Your task to perform on an android device: see tabs open on other devices in the chrome app Image 0: 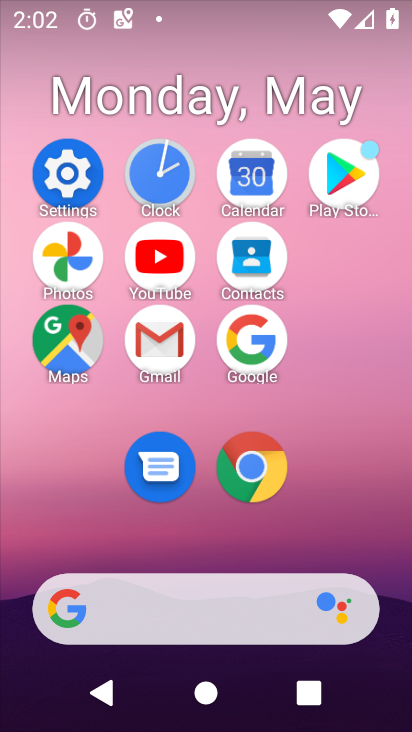
Step 0: click (288, 470)
Your task to perform on an android device: see tabs open on other devices in the chrome app Image 1: 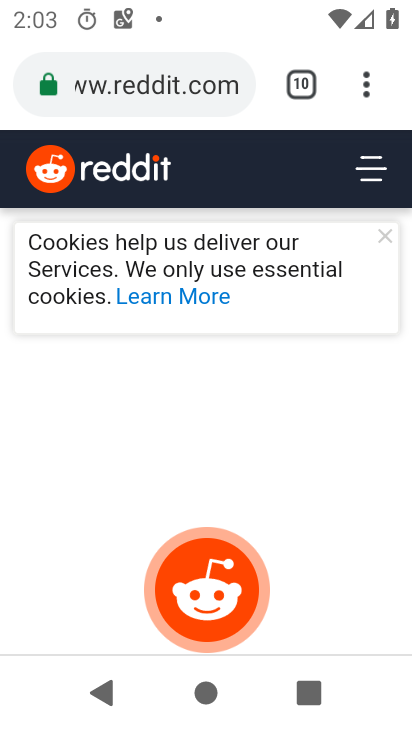
Step 1: click (366, 100)
Your task to perform on an android device: see tabs open on other devices in the chrome app Image 2: 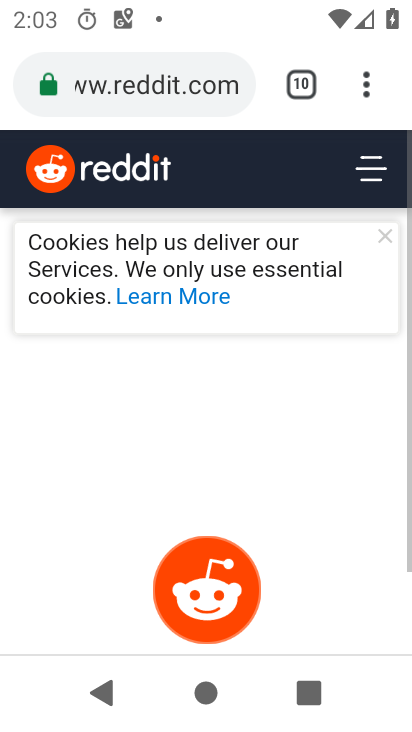
Step 2: click (377, 105)
Your task to perform on an android device: see tabs open on other devices in the chrome app Image 3: 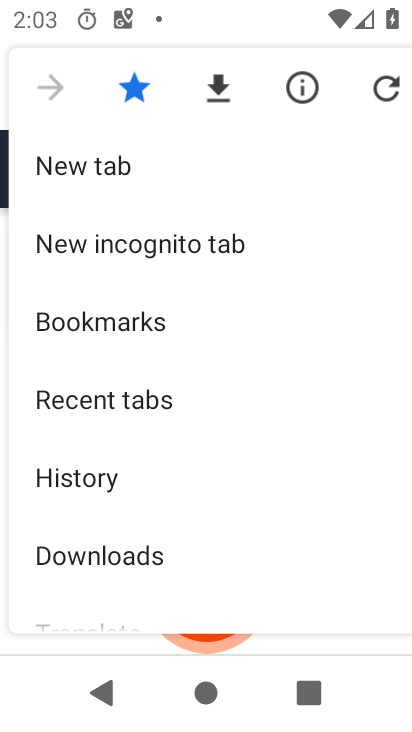
Step 3: click (238, 388)
Your task to perform on an android device: see tabs open on other devices in the chrome app Image 4: 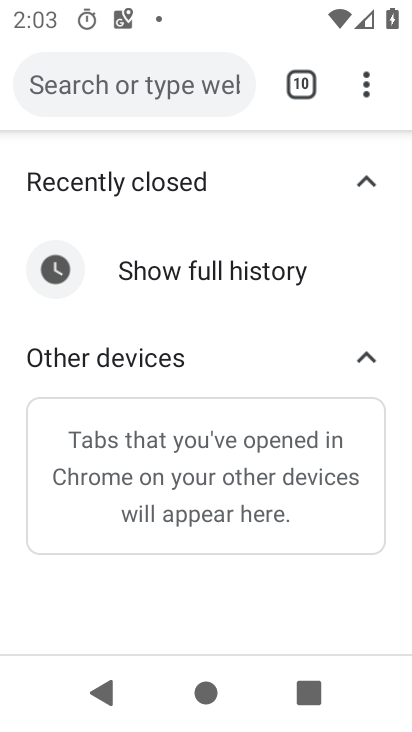
Step 4: task complete